Your task to perform on an android device: Open notification settings Image 0: 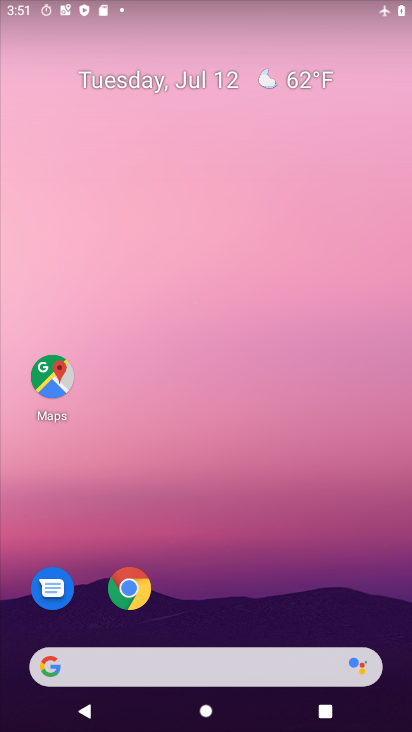
Step 0: drag from (207, 643) to (212, 173)
Your task to perform on an android device: Open notification settings Image 1: 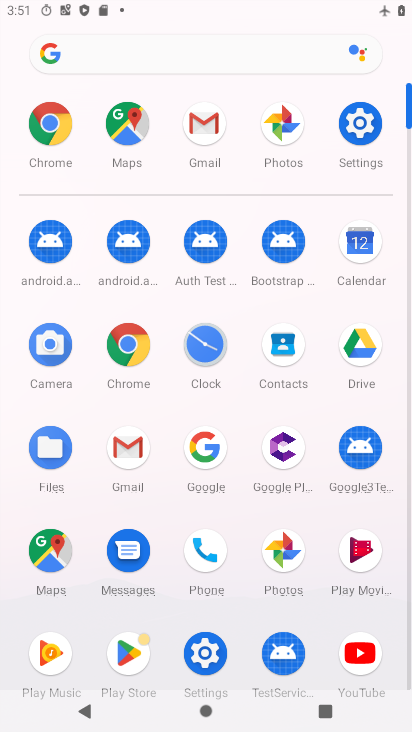
Step 1: click (215, 655)
Your task to perform on an android device: Open notification settings Image 2: 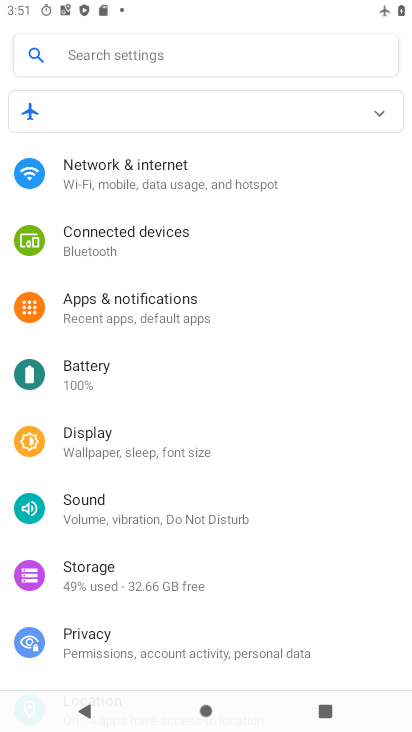
Step 2: click (158, 309)
Your task to perform on an android device: Open notification settings Image 3: 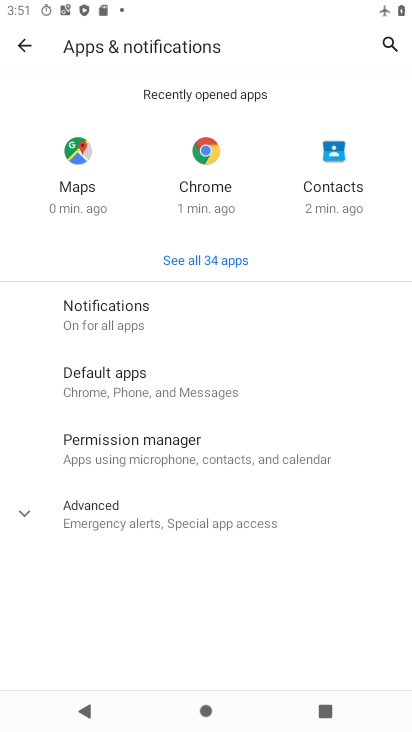
Step 3: click (138, 319)
Your task to perform on an android device: Open notification settings Image 4: 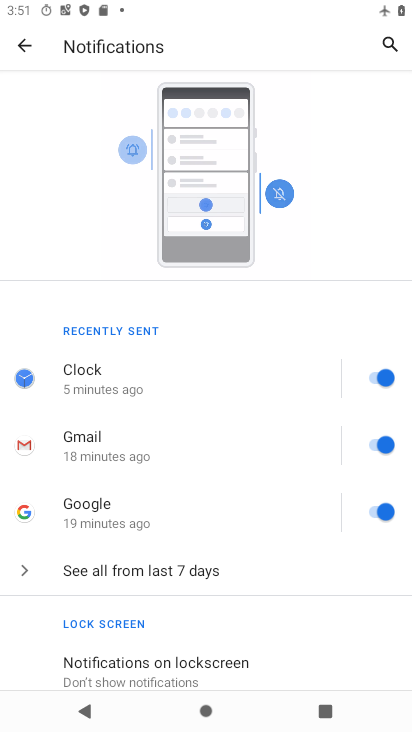
Step 4: task complete